Your task to perform on an android device: turn off improve location accuracy Image 0: 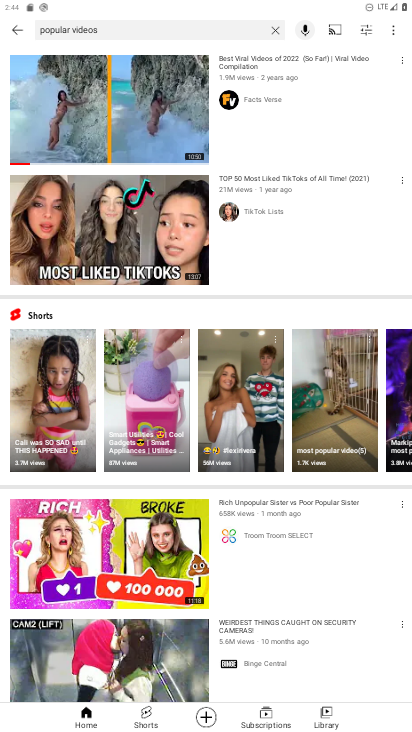
Step 0: press home button
Your task to perform on an android device: turn off improve location accuracy Image 1: 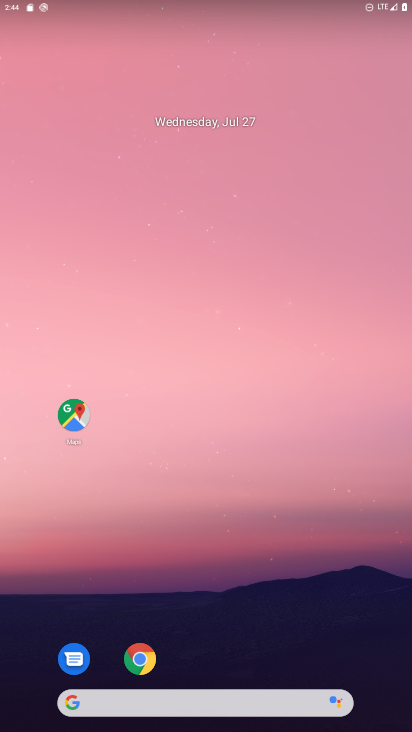
Step 1: drag from (256, 674) to (257, 590)
Your task to perform on an android device: turn off improve location accuracy Image 2: 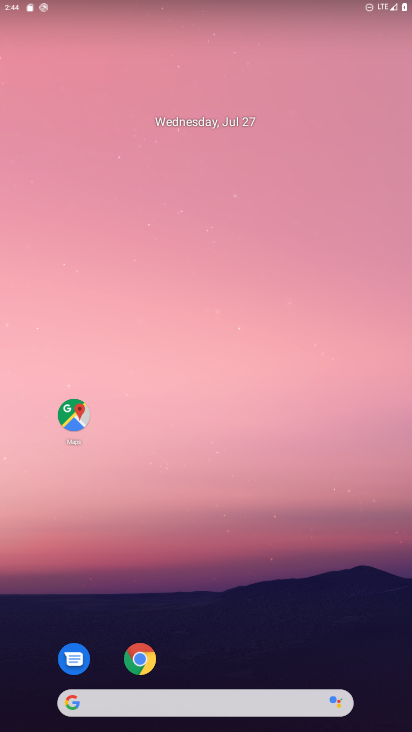
Step 2: drag from (217, 659) to (245, 140)
Your task to perform on an android device: turn off improve location accuracy Image 3: 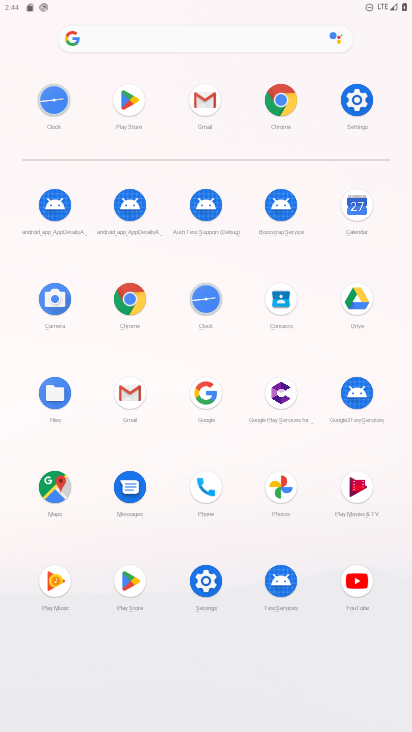
Step 3: click (205, 596)
Your task to perform on an android device: turn off improve location accuracy Image 4: 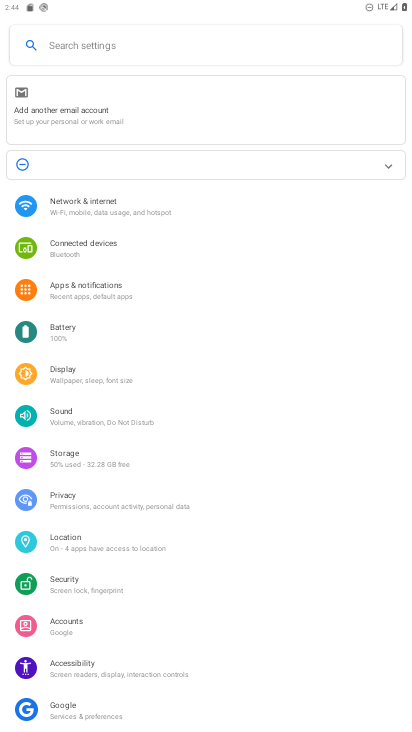
Step 4: click (108, 540)
Your task to perform on an android device: turn off improve location accuracy Image 5: 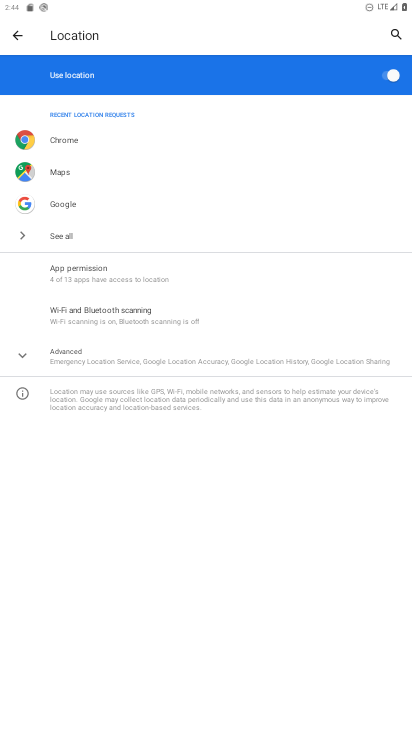
Step 5: click (86, 349)
Your task to perform on an android device: turn off improve location accuracy Image 6: 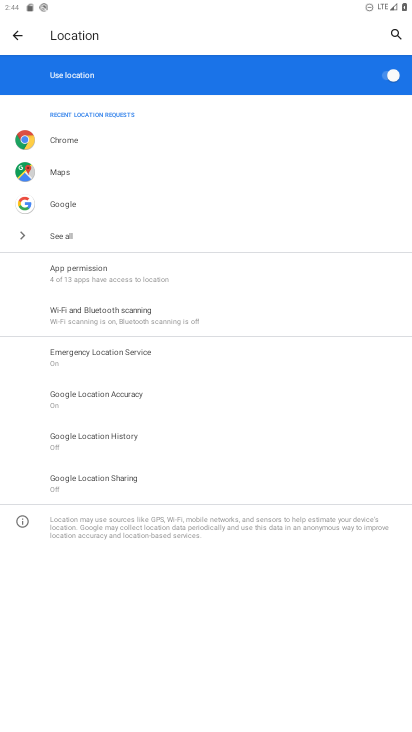
Step 6: click (124, 401)
Your task to perform on an android device: turn off improve location accuracy Image 7: 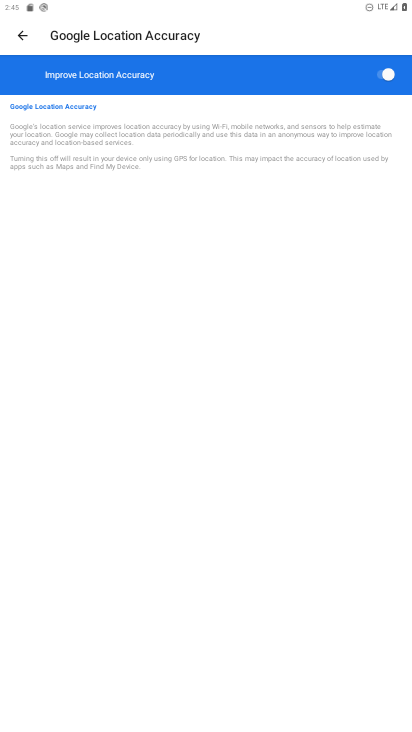
Step 7: click (251, 361)
Your task to perform on an android device: turn off improve location accuracy Image 8: 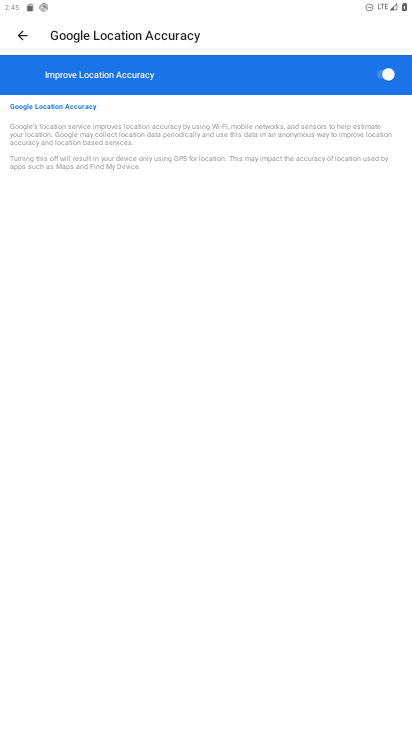
Step 8: click (185, 542)
Your task to perform on an android device: turn off improve location accuracy Image 9: 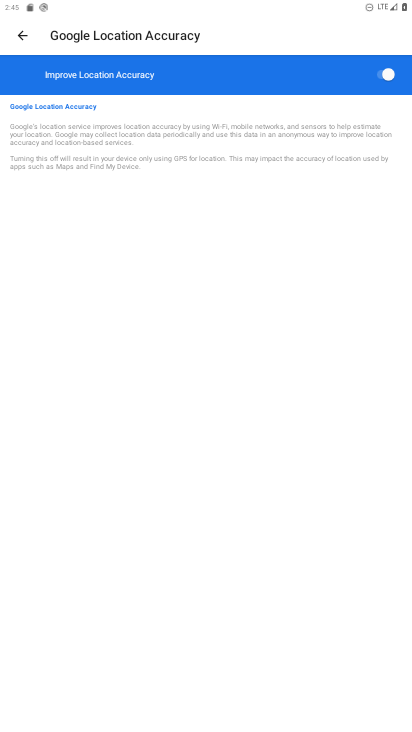
Step 9: click (276, 485)
Your task to perform on an android device: turn off improve location accuracy Image 10: 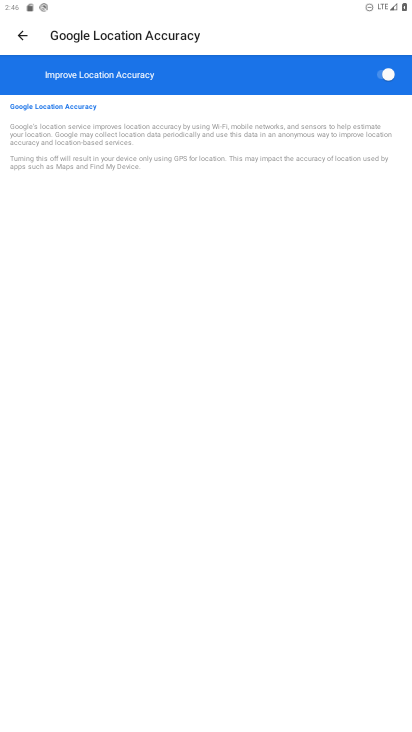
Step 10: click (385, 72)
Your task to perform on an android device: turn off improve location accuracy Image 11: 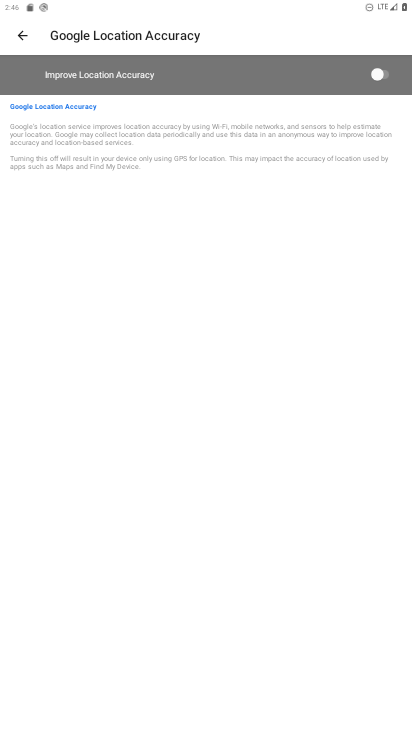
Step 11: click (148, 327)
Your task to perform on an android device: turn off improve location accuracy Image 12: 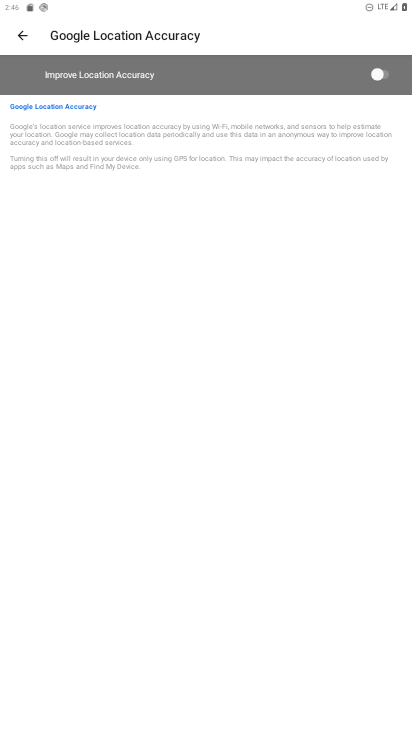
Step 12: click (255, 336)
Your task to perform on an android device: turn off improve location accuracy Image 13: 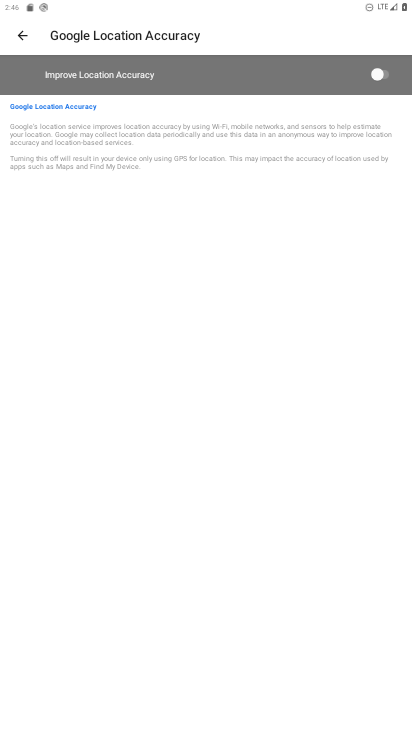
Step 13: drag from (105, 15) to (121, 327)
Your task to perform on an android device: turn off improve location accuracy Image 14: 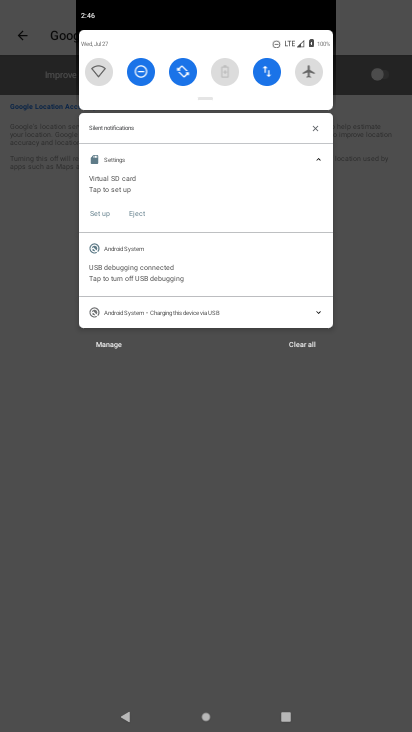
Step 14: click (297, 342)
Your task to perform on an android device: turn off improve location accuracy Image 15: 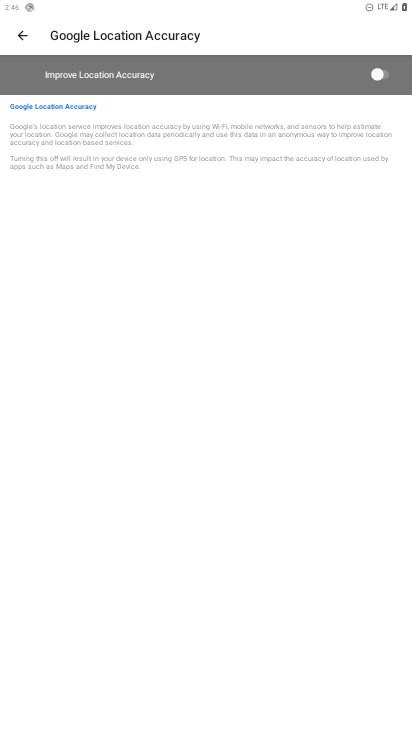
Step 15: task complete